Your task to perform on an android device: add a contact Image 0: 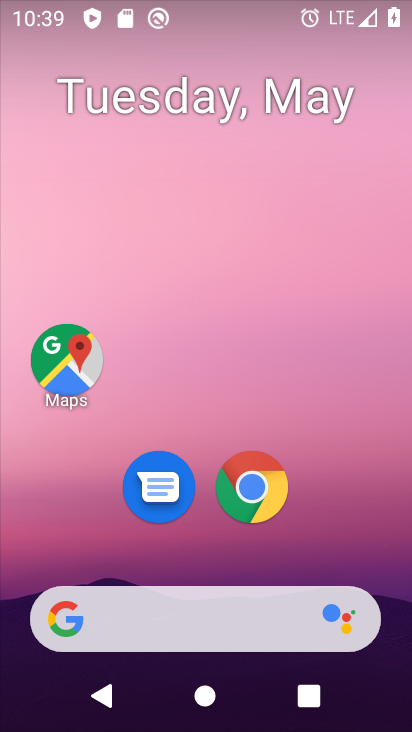
Step 0: drag from (193, 545) to (246, 0)
Your task to perform on an android device: add a contact Image 1: 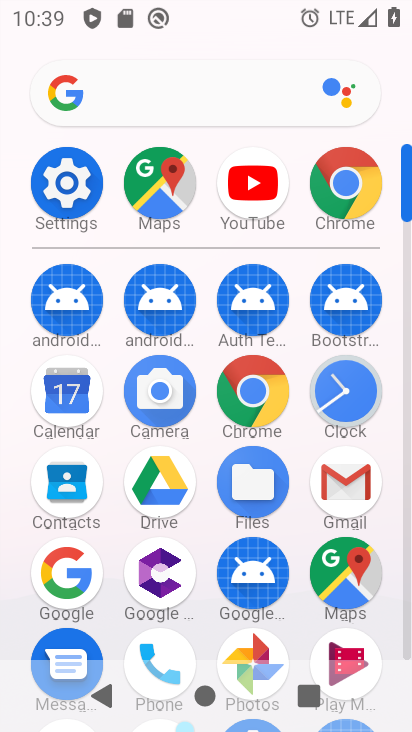
Step 1: drag from (207, 592) to (203, 186)
Your task to perform on an android device: add a contact Image 2: 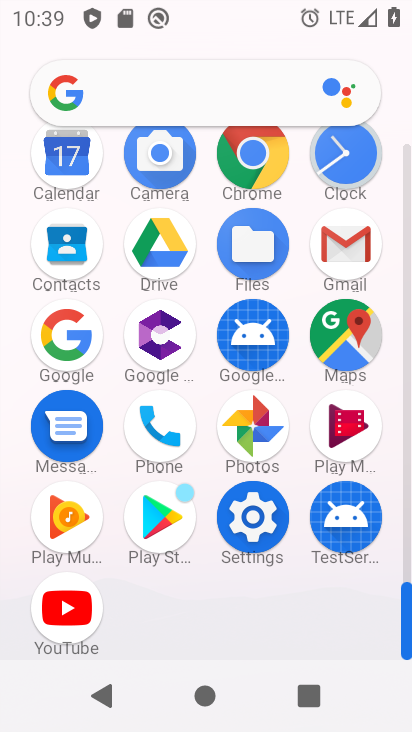
Step 2: click (67, 255)
Your task to perform on an android device: add a contact Image 3: 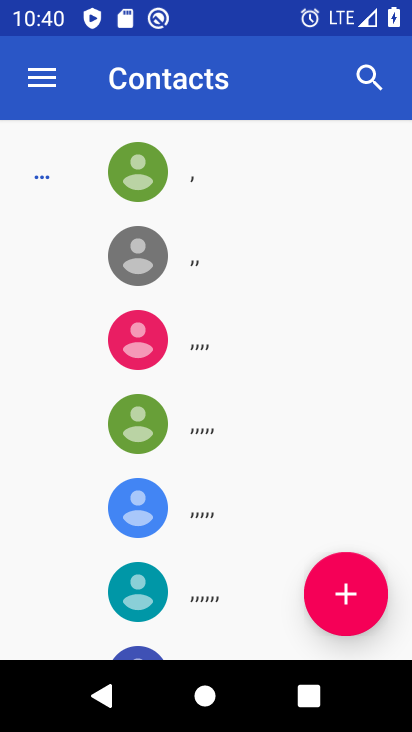
Step 3: click (333, 614)
Your task to perform on an android device: add a contact Image 4: 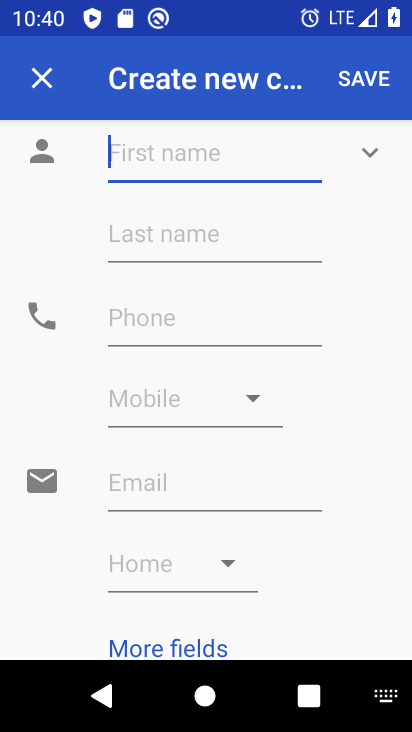
Step 4: type "fgdt"
Your task to perform on an android device: add a contact Image 5: 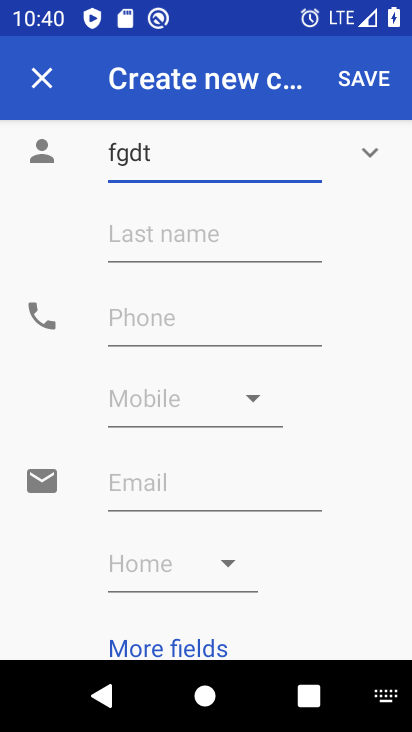
Step 5: click (393, 84)
Your task to perform on an android device: add a contact Image 6: 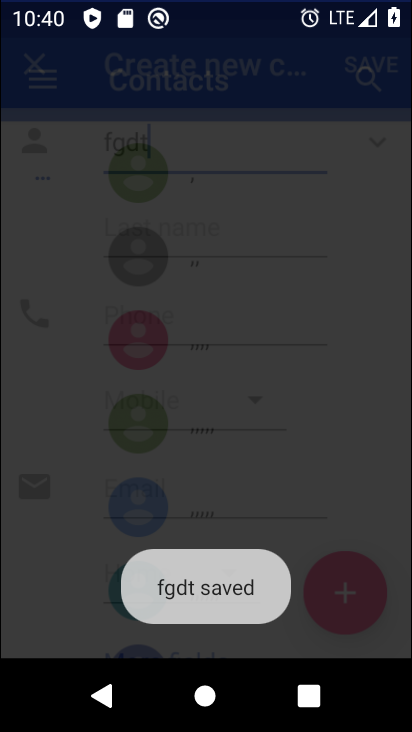
Step 6: task complete